Your task to perform on an android device: Open eBay Image 0: 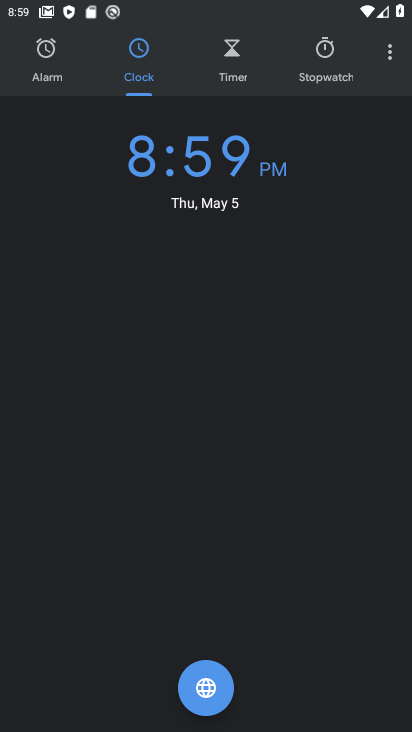
Step 0: press home button
Your task to perform on an android device: Open eBay Image 1: 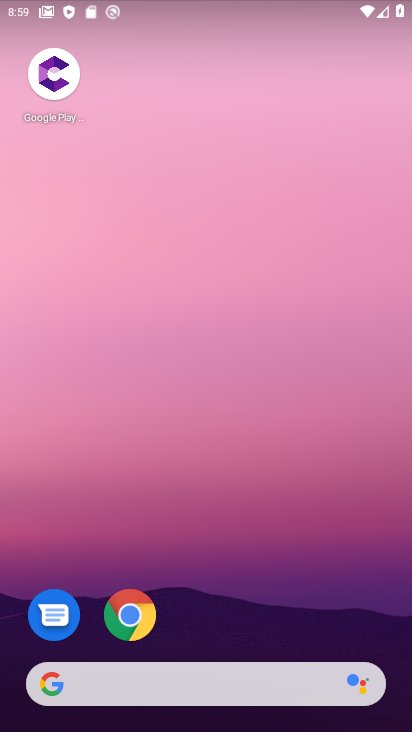
Step 1: click (122, 617)
Your task to perform on an android device: Open eBay Image 2: 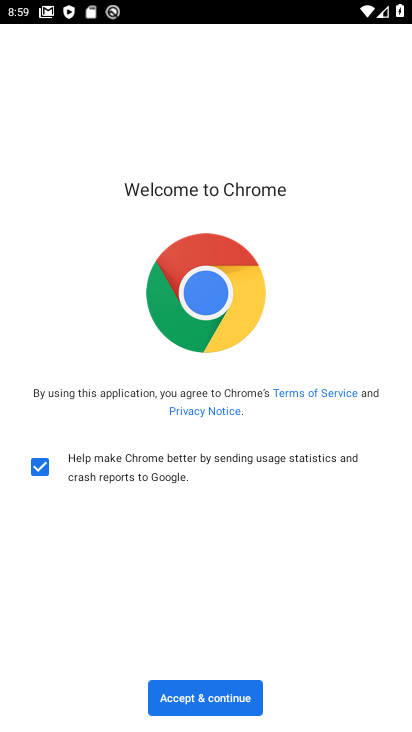
Step 2: click (192, 697)
Your task to perform on an android device: Open eBay Image 3: 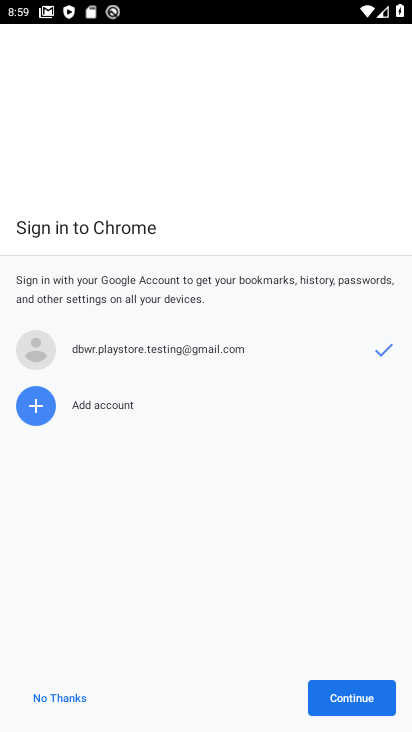
Step 3: click (44, 692)
Your task to perform on an android device: Open eBay Image 4: 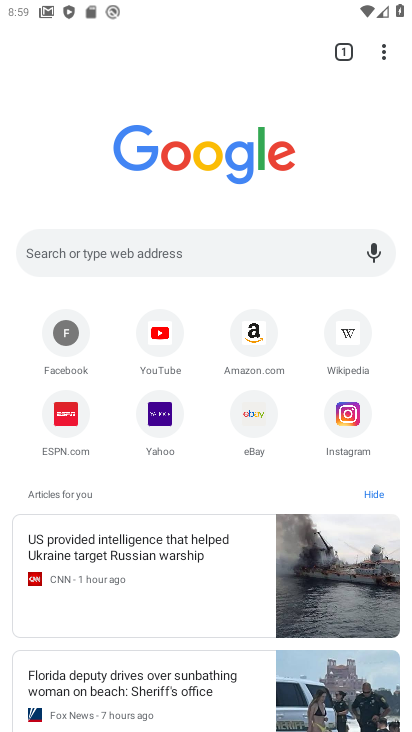
Step 4: click (215, 235)
Your task to perform on an android device: Open eBay Image 5: 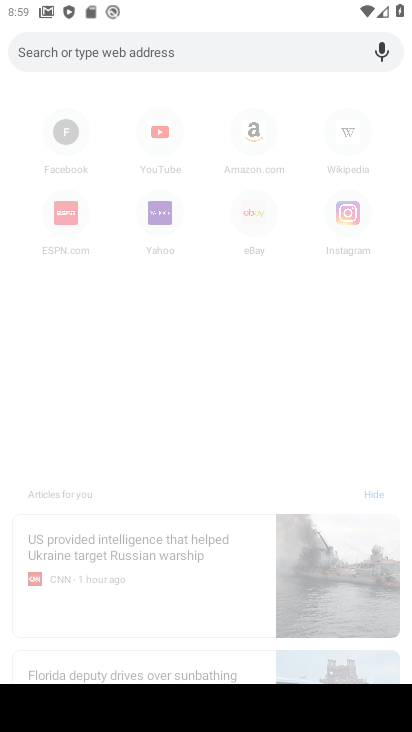
Step 5: type "eBay"
Your task to perform on an android device: Open eBay Image 6: 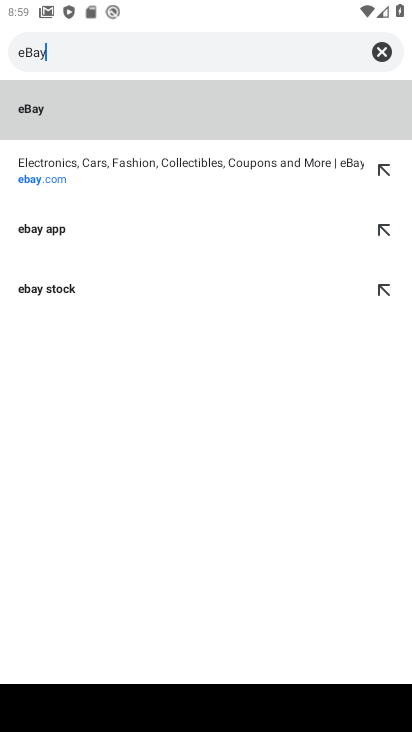
Step 6: type ""
Your task to perform on an android device: Open eBay Image 7: 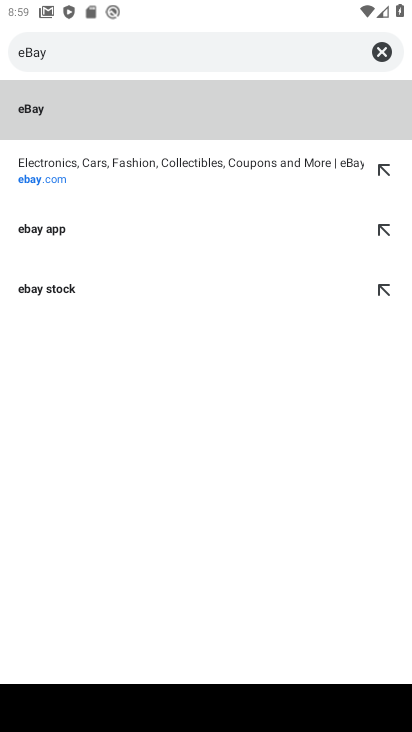
Step 7: click (176, 111)
Your task to perform on an android device: Open eBay Image 8: 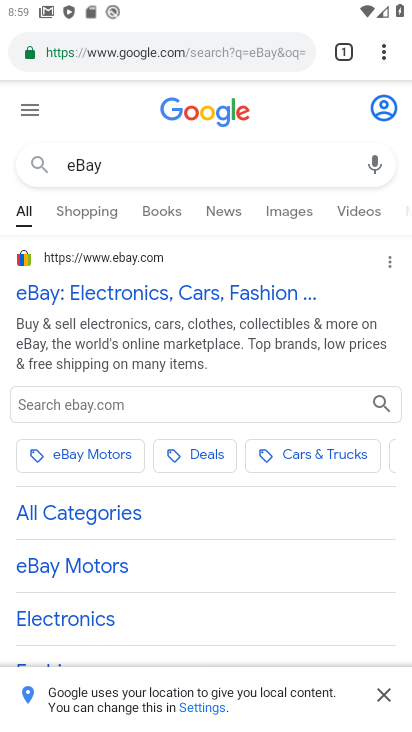
Step 8: task complete